Your task to perform on an android device: move a message to another label in the gmail app Image 0: 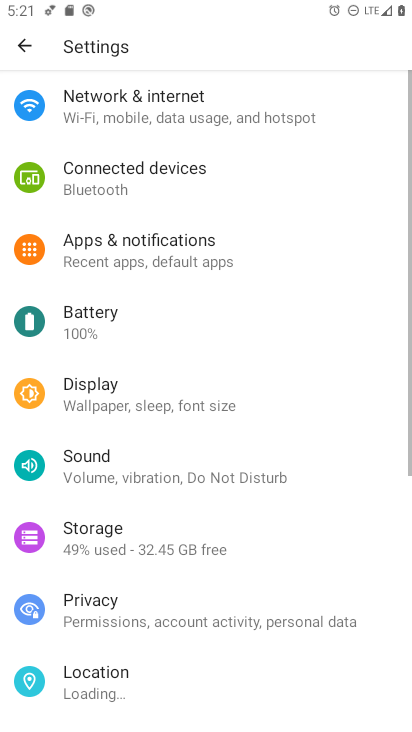
Step 0: press home button
Your task to perform on an android device: move a message to another label in the gmail app Image 1: 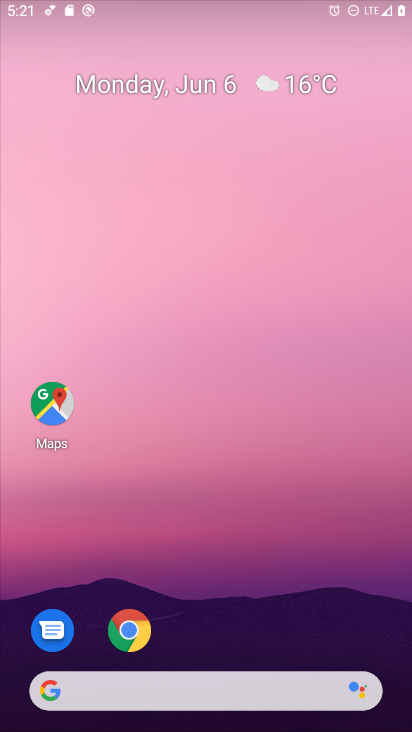
Step 1: drag from (278, 625) to (7, 310)
Your task to perform on an android device: move a message to another label in the gmail app Image 2: 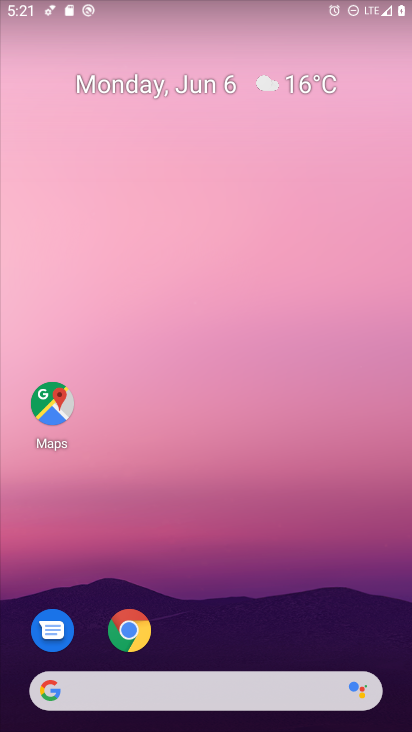
Step 2: drag from (268, 512) to (0, 139)
Your task to perform on an android device: move a message to another label in the gmail app Image 3: 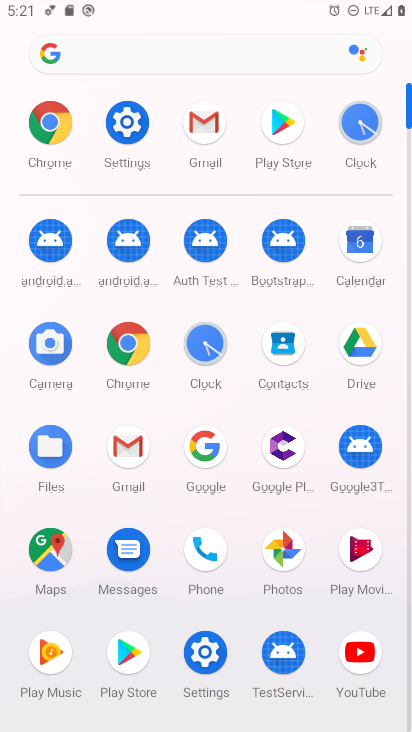
Step 3: click (204, 106)
Your task to perform on an android device: move a message to another label in the gmail app Image 4: 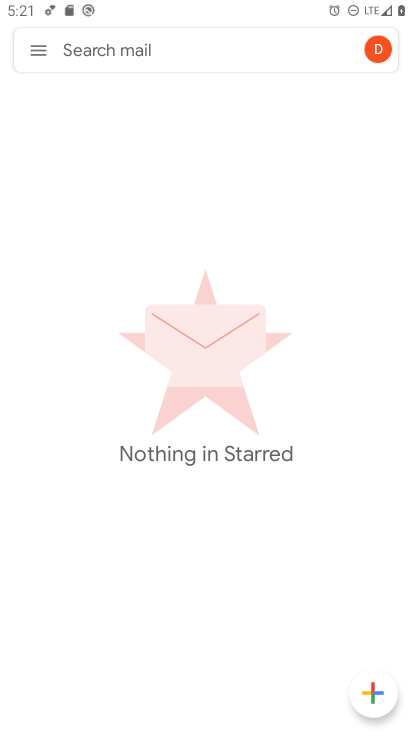
Step 4: click (39, 37)
Your task to perform on an android device: move a message to another label in the gmail app Image 5: 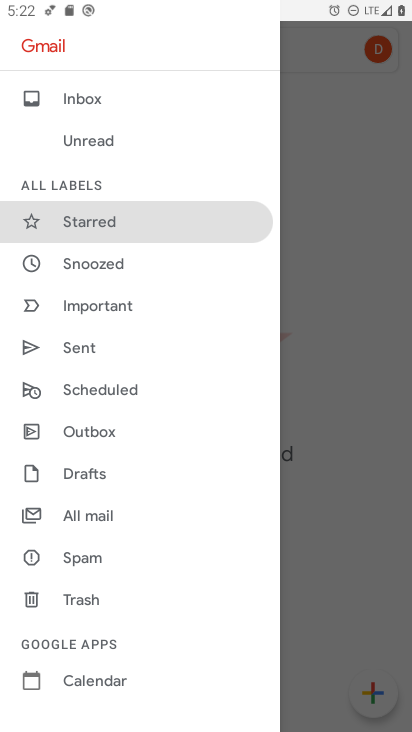
Step 5: click (104, 99)
Your task to perform on an android device: move a message to another label in the gmail app Image 6: 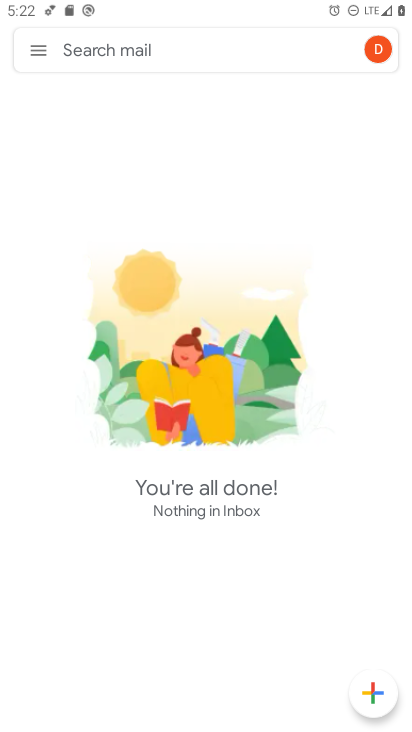
Step 6: task complete